Your task to perform on an android device: uninstall "Pinterest" Image 0: 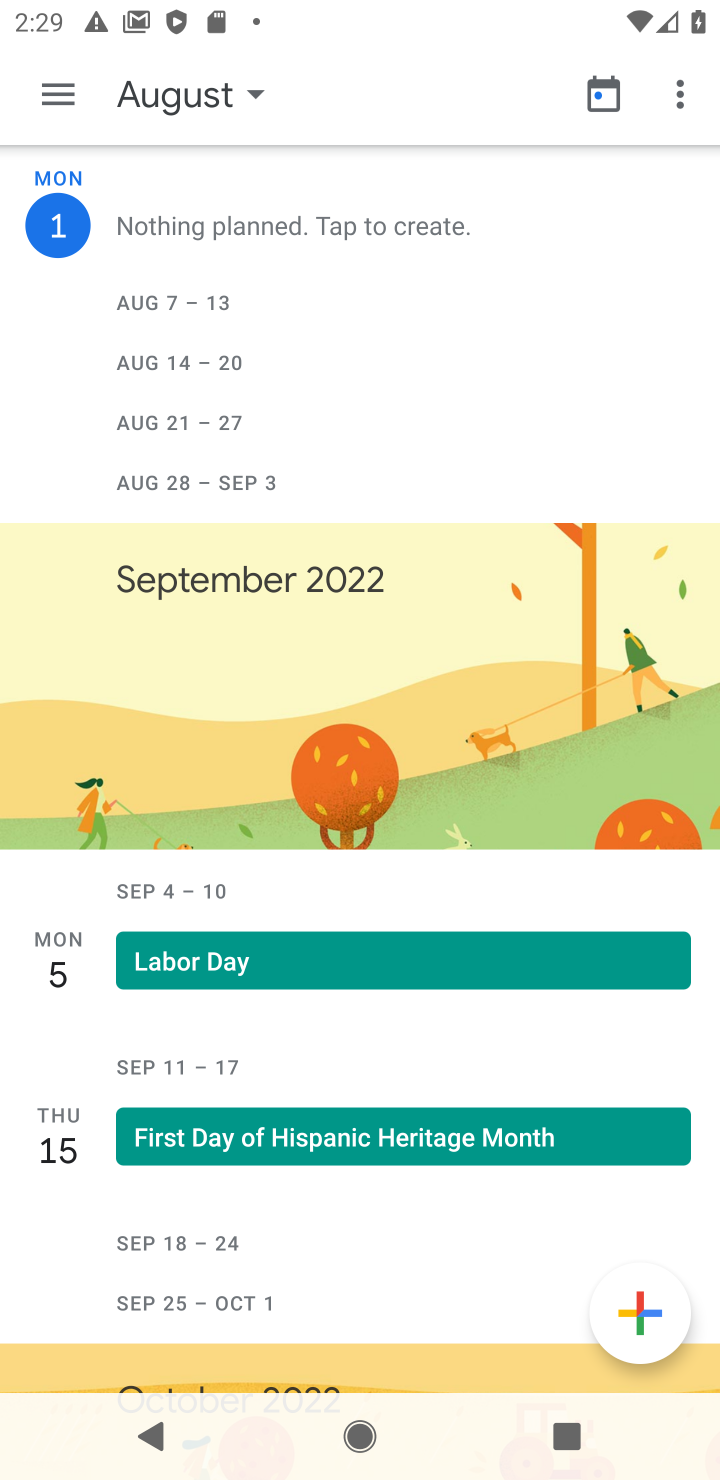
Step 0: press home button
Your task to perform on an android device: uninstall "Pinterest" Image 1: 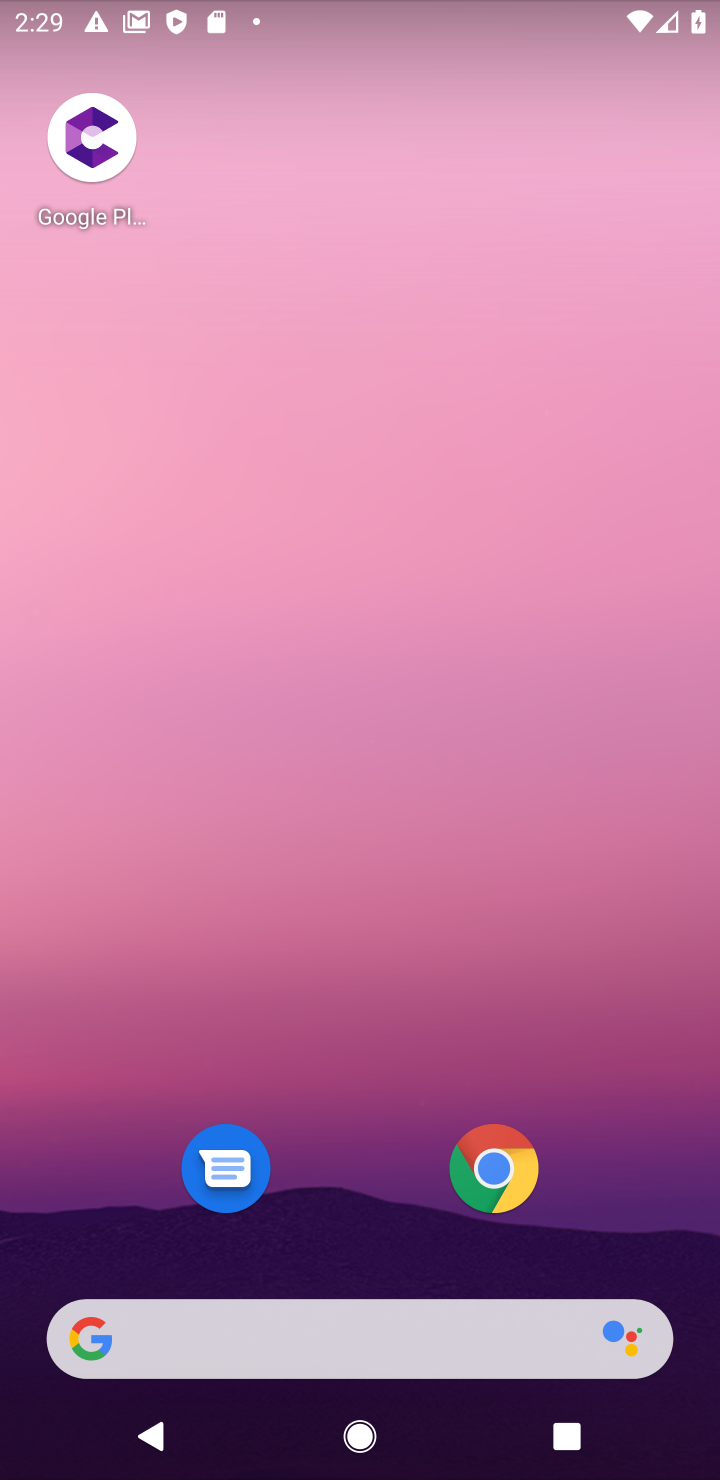
Step 1: drag from (442, 1001) to (450, 150)
Your task to perform on an android device: uninstall "Pinterest" Image 2: 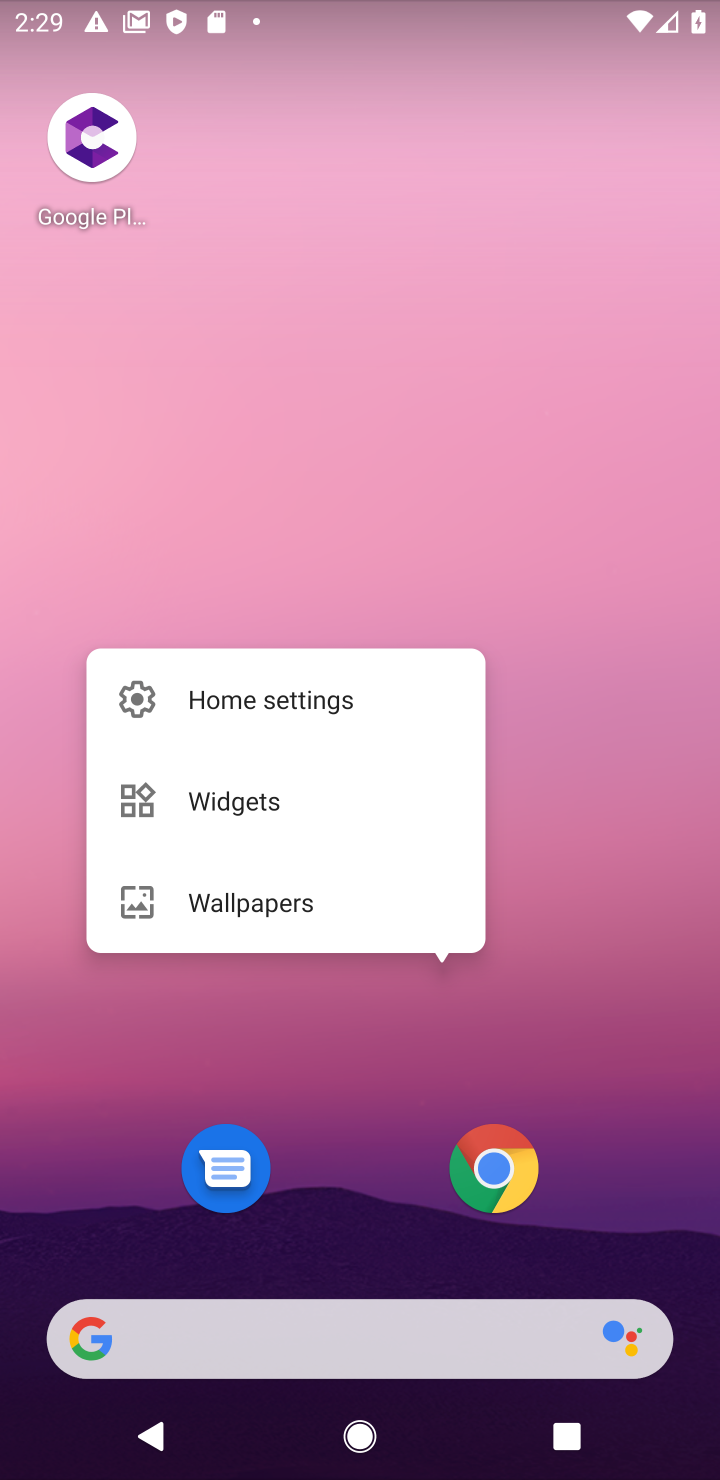
Step 2: drag from (620, 999) to (540, 116)
Your task to perform on an android device: uninstall "Pinterest" Image 3: 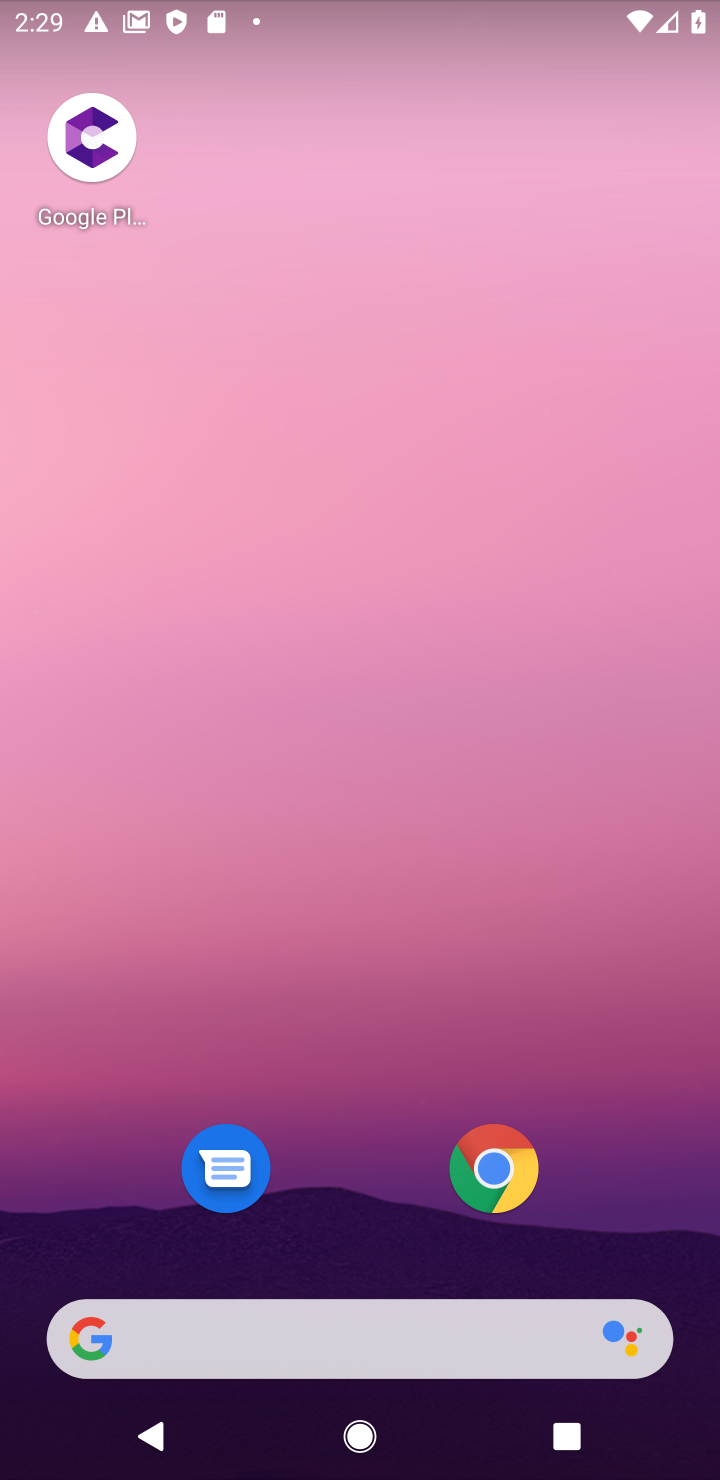
Step 3: drag from (708, 1242) to (627, 41)
Your task to perform on an android device: uninstall "Pinterest" Image 4: 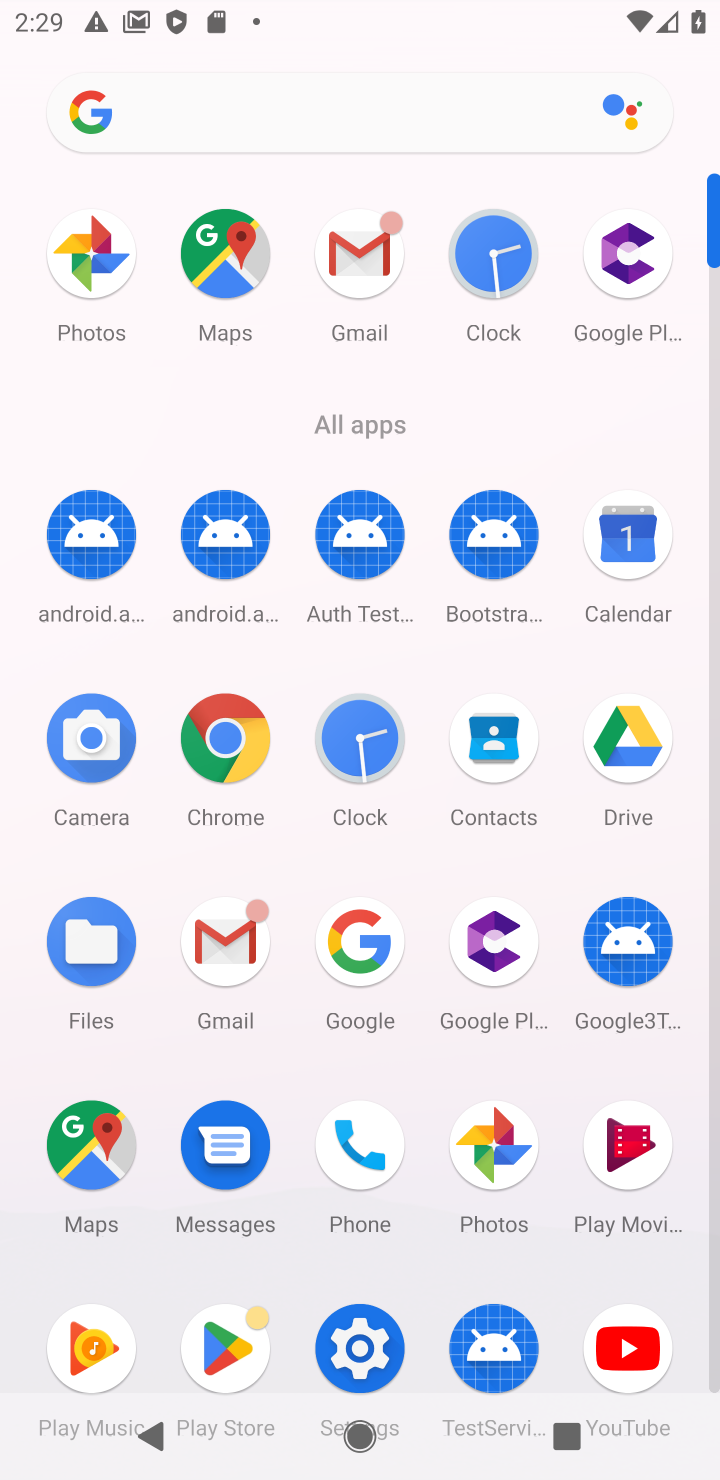
Step 4: click (202, 1342)
Your task to perform on an android device: uninstall "Pinterest" Image 5: 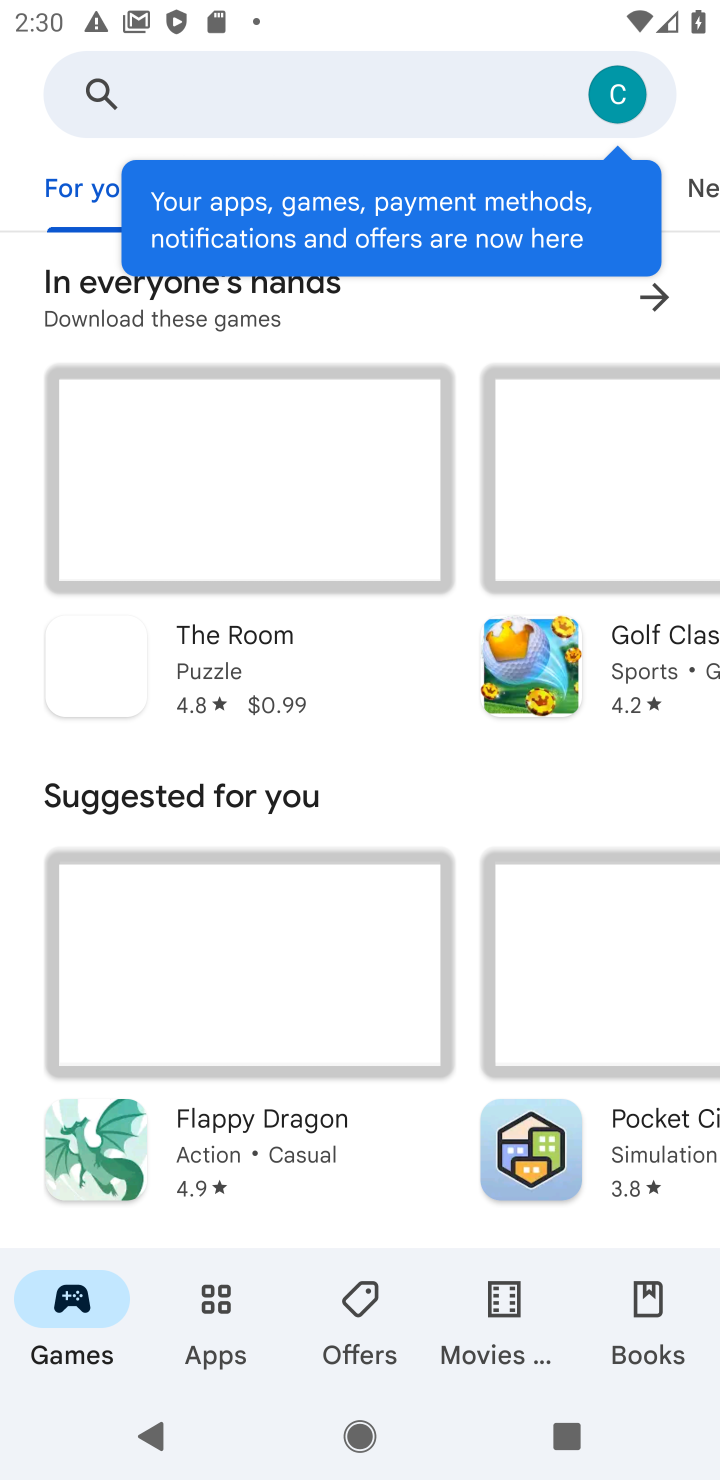
Step 5: click (439, 86)
Your task to perform on an android device: uninstall "Pinterest" Image 6: 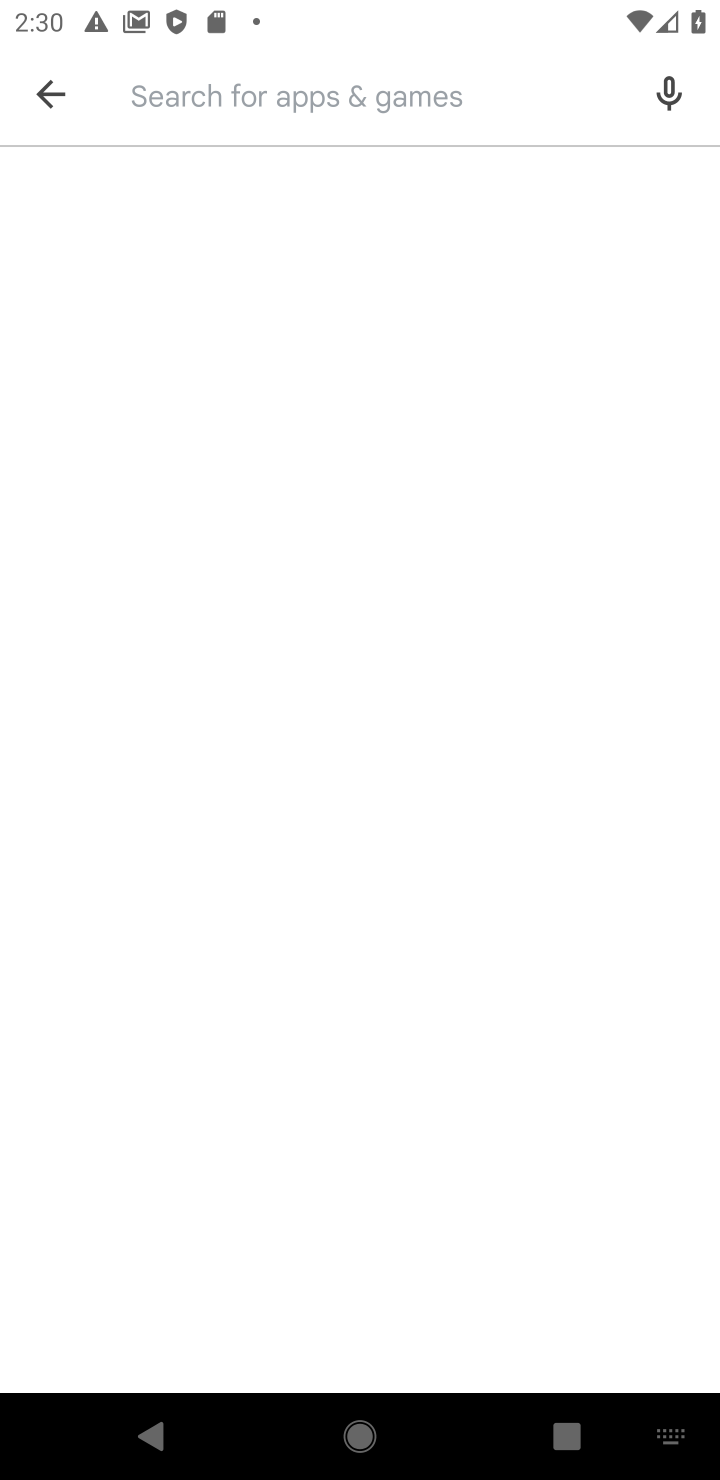
Step 6: type "pinterest"
Your task to perform on an android device: uninstall "Pinterest" Image 7: 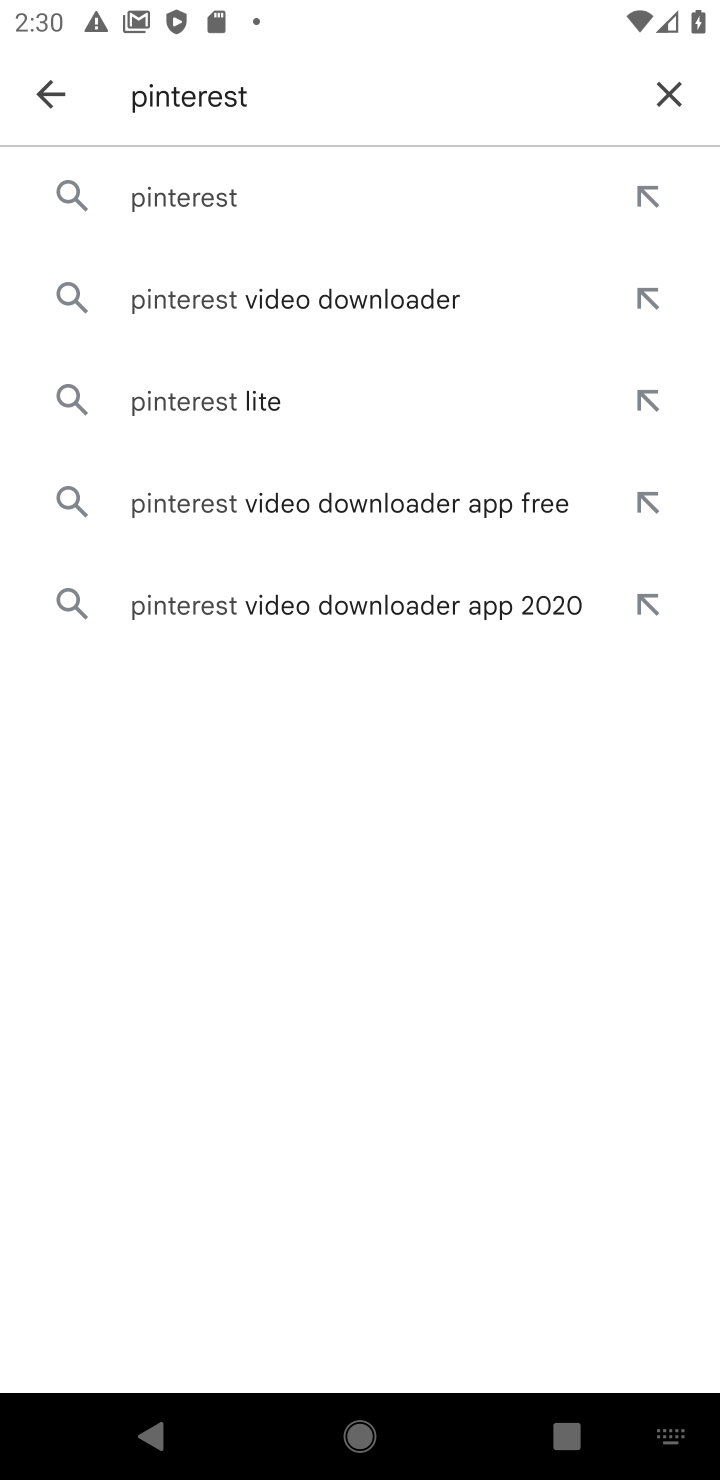
Step 7: click (265, 199)
Your task to perform on an android device: uninstall "Pinterest" Image 8: 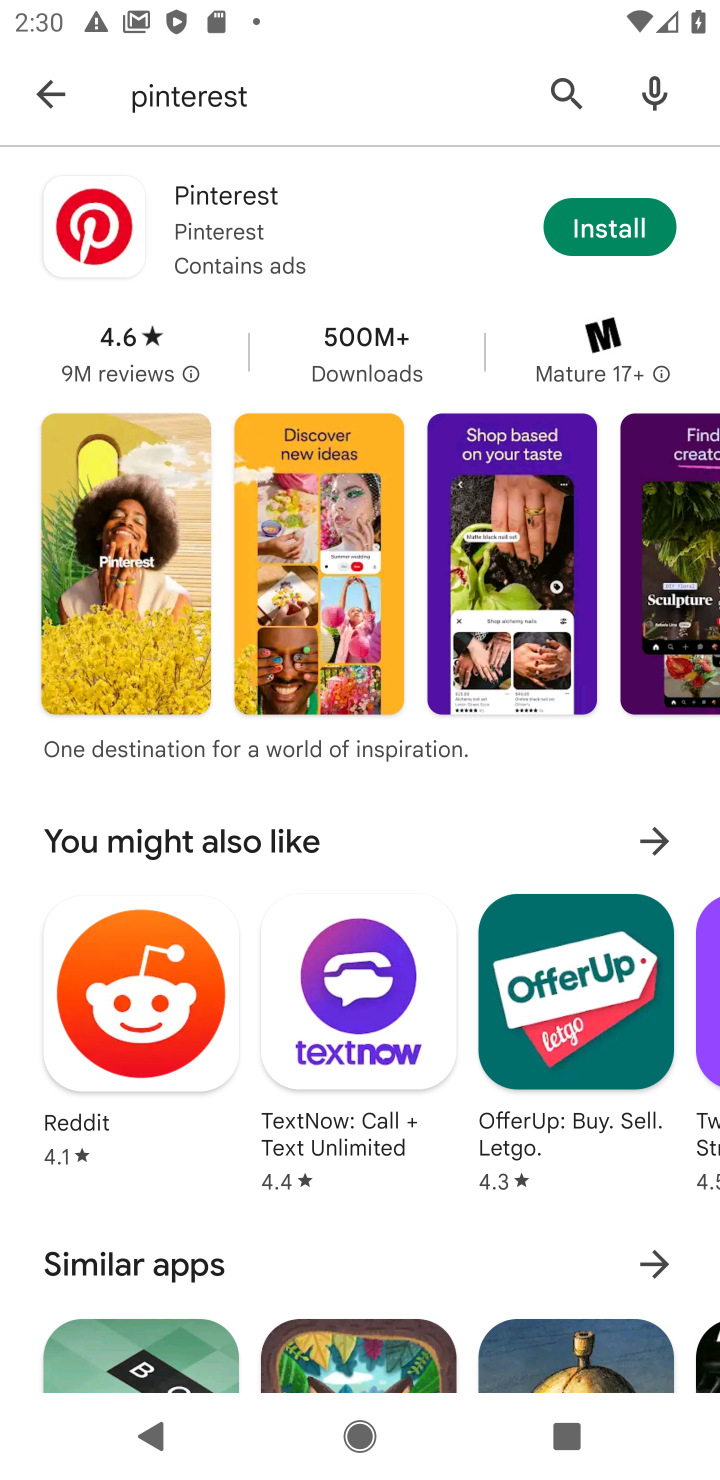
Step 8: task complete